Your task to perform on an android device: find which apps use the phone's location Image 0: 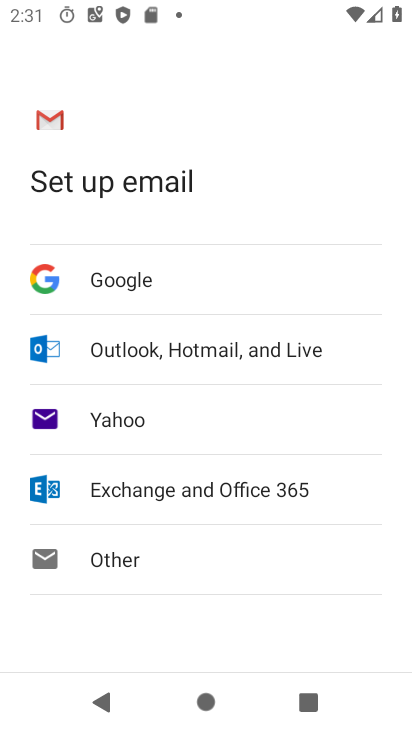
Step 0: press home button
Your task to perform on an android device: find which apps use the phone's location Image 1: 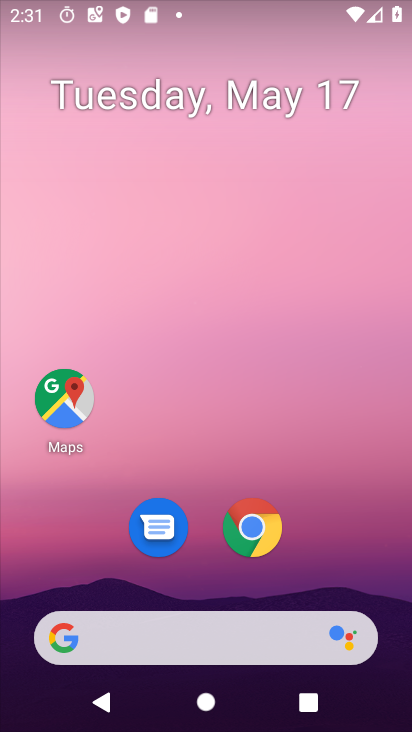
Step 1: drag from (275, 676) to (214, 199)
Your task to perform on an android device: find which apps use the phone's location Image 2: 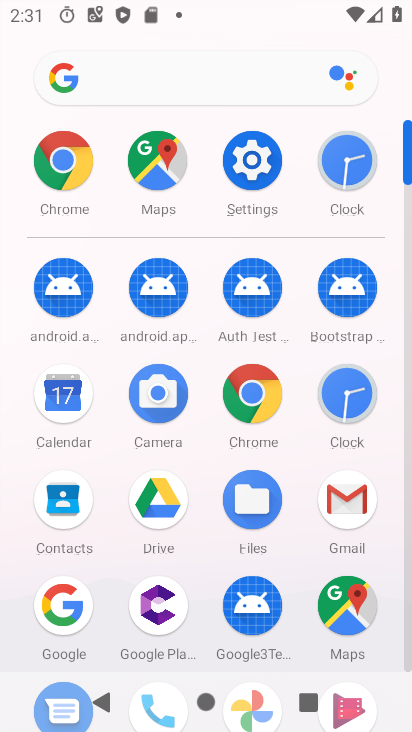
Step 2: click (251, 179)
Your task to perform on an android device: find which apps use the phone's location Image 3: 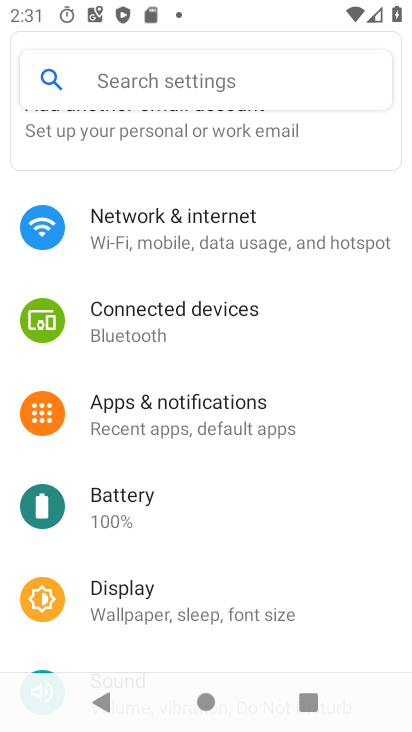
Step 3: click (175, 81)
Your task to perform on an android device: find which apps use the phone's location Image 4: 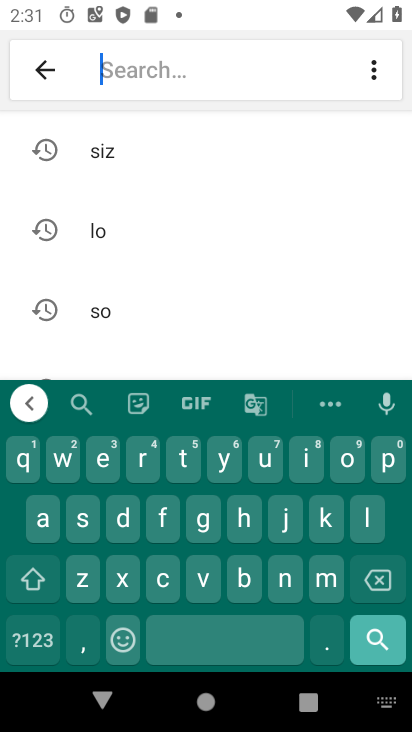
Step 4: click (177, 235)
Your task to perform on an android device: find which apps use the phone's location Image 5: 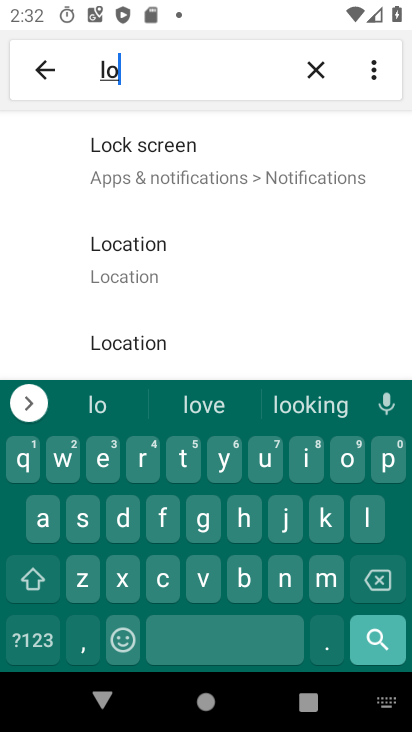
Step 5: click (173, 270)
Your task to perform on an android device: find which apps use the phone's location Image 6: 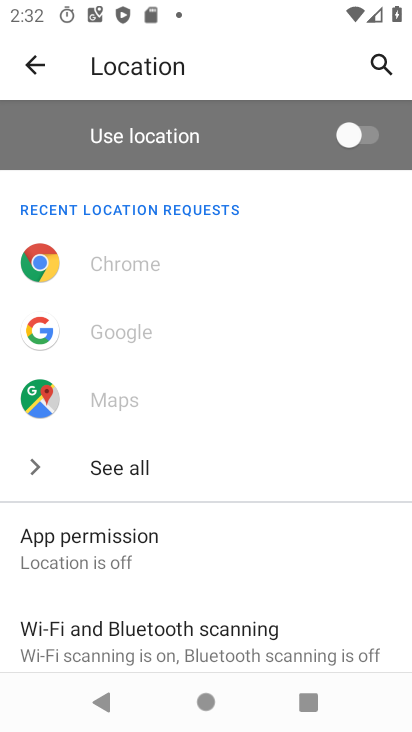
Step 6: task complete